Your task to perform on an android device: Open Google Maps Image 0: 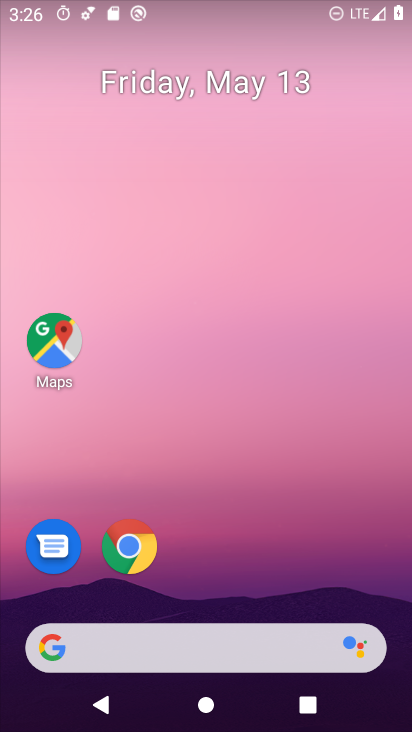
Step 0: drag from (204, 560) to (276, 0)
Your task to perform on an android device: Open Google Maps Image 1: 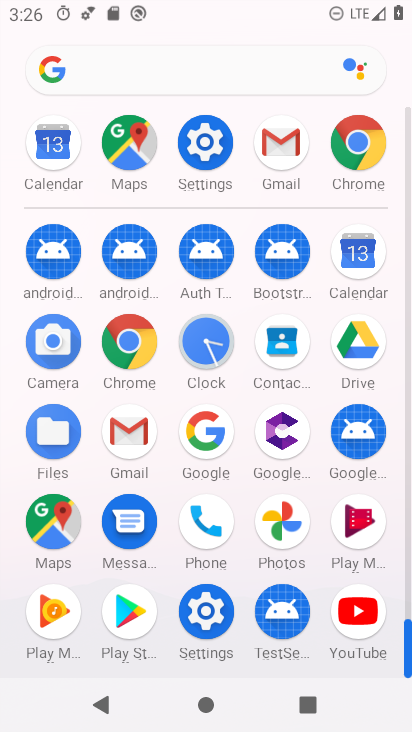
Step 1: click (51, 510)
Your task to perform on an android device: Open Google Maps Image 2: 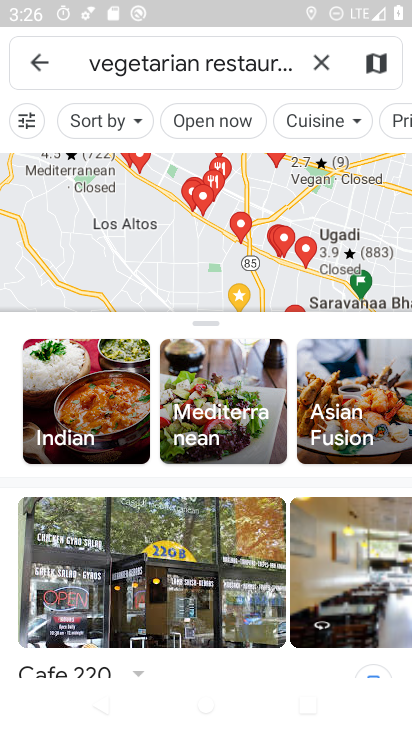
Step 2: task complete